Your task to perform on an android device: Clear the cart on amazon. Search for rayovac triple a on amazon, select the first entry, add it to the cart, then select checkout. Image 0: 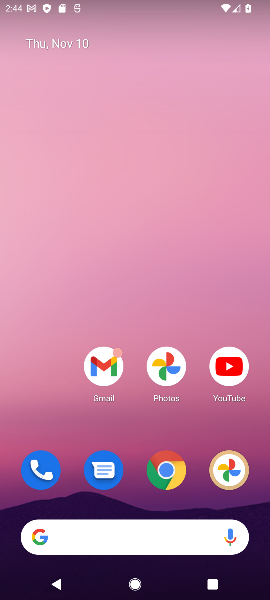
Step 0: click (240, 578)
Your task to perform on an android device: Clear the cart on amazon. Search for rayovac triple a on amazon, select the first entry, add it to the cart, then select checkout. Image 1: 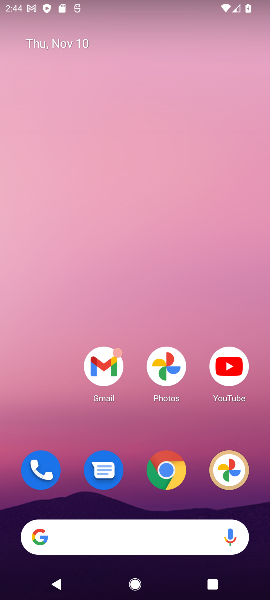
Step 1: click (165, 478)
Your task to perform on an android device: Clear the cart on amazon. Search for rayovac triple a on amazon, select the first entry, add it to the cart, then select checkout. Image 2: 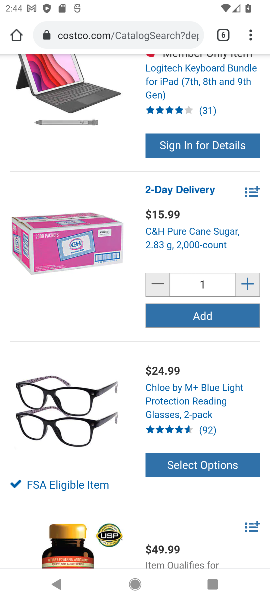
Step 2: click (224, 33)
Your task to perform on an android device: Clear the cart on amazon. Search for rayovac triple a on amazon, select the first entry, add it to the cart, then select checkout. Image 3: 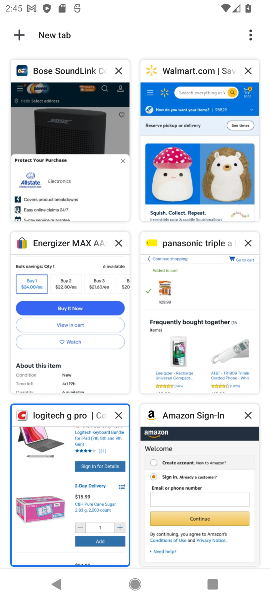
Step 3: click (167, 480)
Your task to perform on an android device: Clear the cart on amazon. Search for rayovac triple a on amazon, select the first entry, add it to the cart, then select checkout. Image 4: 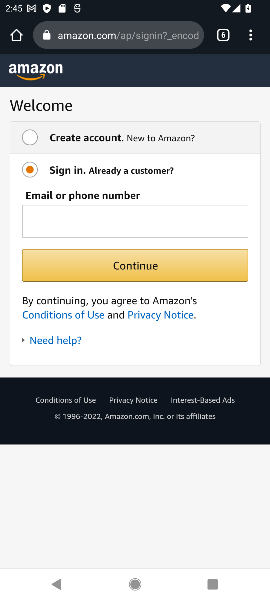
Step 4: press back button
Your task to perform on an android device: Clear the cart on amazon. Search for rayovac triple a on amazon, select the first entry, add it to the cart, then select checkout. Image 5: 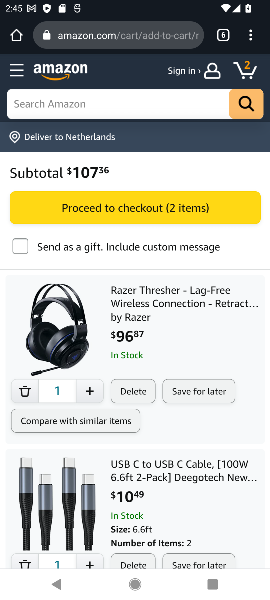
Step 5: click (128, 390)
Your task to perform on an android device: Clear the cart on amazon. Search for rayovac triple a on amazon, select the first entry, add it to the cart, then select checkout. Image 6: 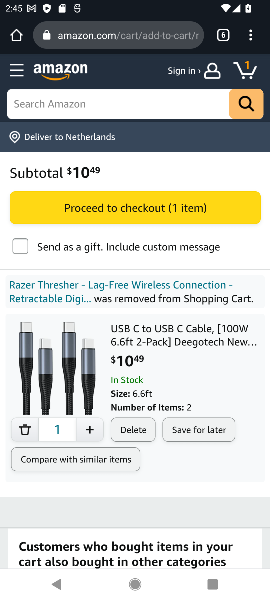
Step 6: click (140, 432)
Your task to perform on an android device: Clear the cart on amazon. Search for rayovac triple a on amazon, select the first entry, add it to the cart, then select checkout. Image 7: 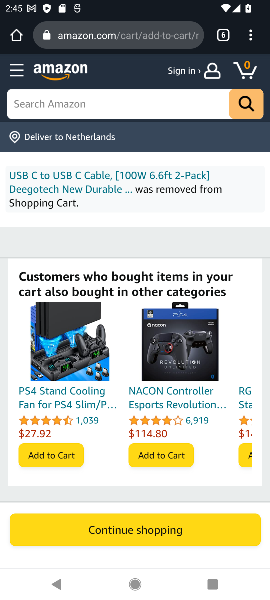
Step 7: click (112, 104)
Your task to perform on an android device: Clear the cart on amazon. Search for rayovac triple a on amazon, select the first entry, add it to the cart, then select checkout. Image 8: 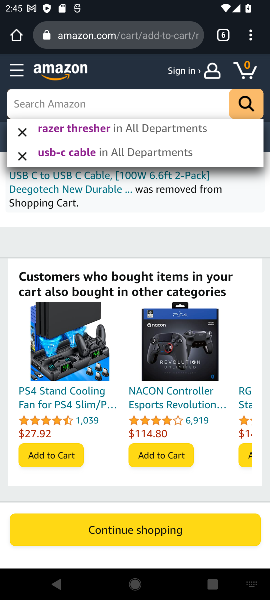
Step 8: type " rayovac triple a"
Your task to perform on an android device: Clear the cart on amazon. Search for rayovac triple a on amazon, select the first entry, add it to the cart, then select checkout. Image 9: 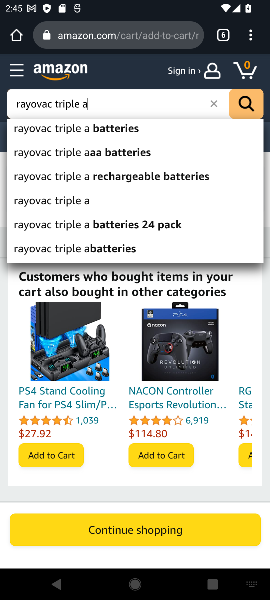
Step 9: click (119, 130)
Your task to perform on an android device: Clear the cart on amazon. Search for rayovac triple a on amazon, select the first entry, add it to the cart, then select checkout. Image 10: 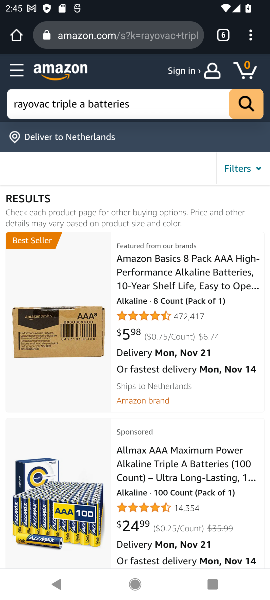
Step 10: drag from (173, 411) to (145, 201)
Your task to perform on an android device: Clear the cart on amazon. Search for rayovac triple a on amazon, select the first entry, add it to the cart, then select checkout. Image 11: 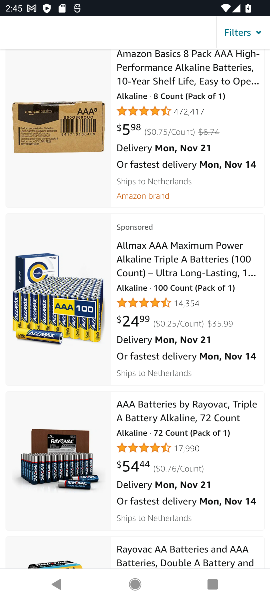
Step 11: click (178, 409)
Your task to perform on an android device: Clear the cart on amazon. Search for rayovac triple a on amazon, select the first entry, add it to the cart, then select checkout. Image 12: 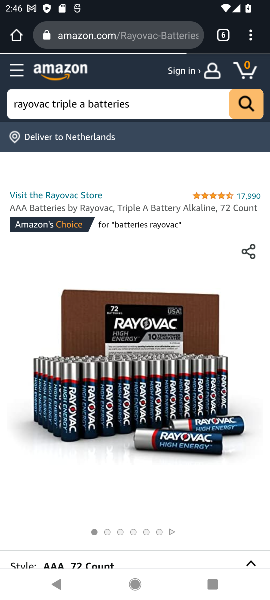
Step 12: drag from (153, 461) to (167, 210)
Your task to perform on an android device: Clear the cart on amazon. Search for rayovac triple a on amazon, select the first entry, add it to the cart, then select checkout. Image 13: 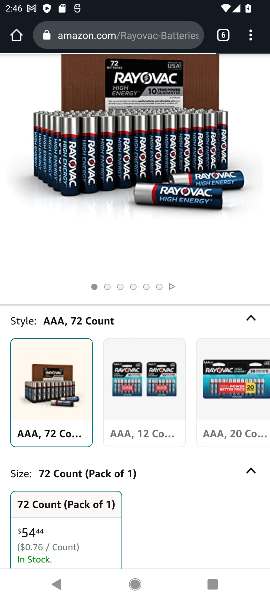
Step 13: click (124, 141)
Your task to perform on an android device: Clear the cart on amazon. Search for rayovac triple a on amazon, select the first entry, add it to the cart, then select checkout. Image 14: 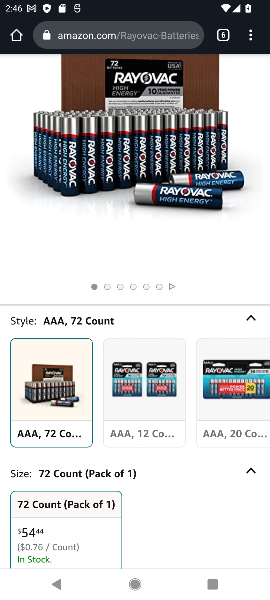
Step 14: drag from (178, 534) to (133, 132)
Your task to perform on an android device: Clear the cart on amazon. Search for rayovac triple a on amazon, select the first entry, add it to the cart, then select checkout. Image 15: 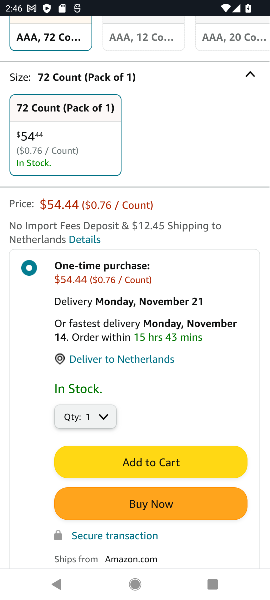
Step 15: click (178, 459)
Your task to perform on an android device: Clear the cart on amazon. Search for rayovac triple a on amazon, select the first entry, add it to the cart, then select checkout. Image 16: 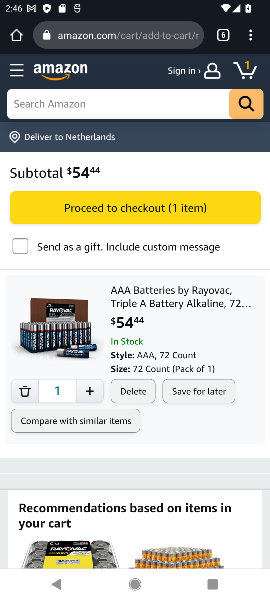
Step 16: task complete